Your task to perform on an android device: Go to privacy settings Image 0: 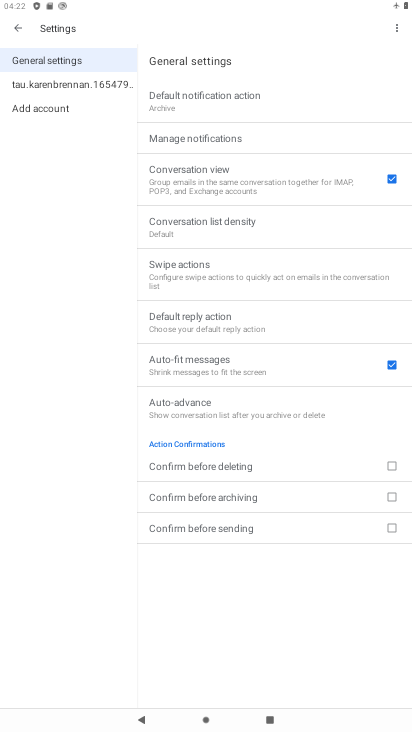
Step 0: press home button
Your task to perform on an android device: Go to privacy settings Image 1: 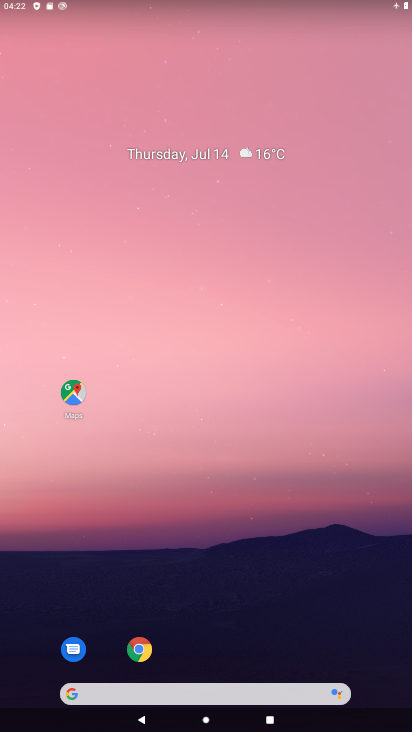
Step 1: drag from (311, 608) to (300, 14)
Your task to perform on an android device: Go to privacy settings Image 2: 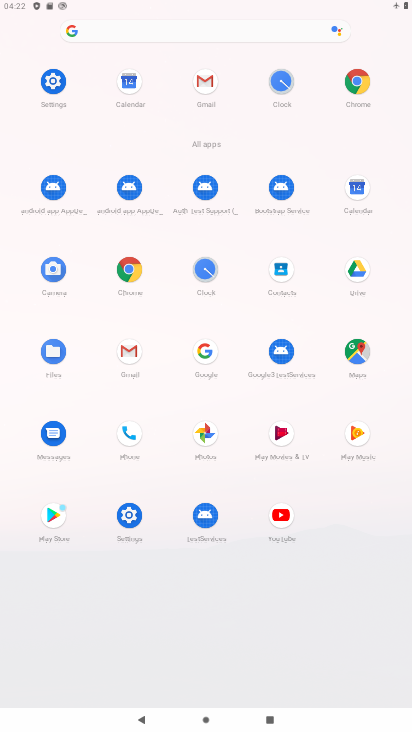
Step 2: click (54, 73)
Your task to perform on an android device: Go to privacy settings Image 3: 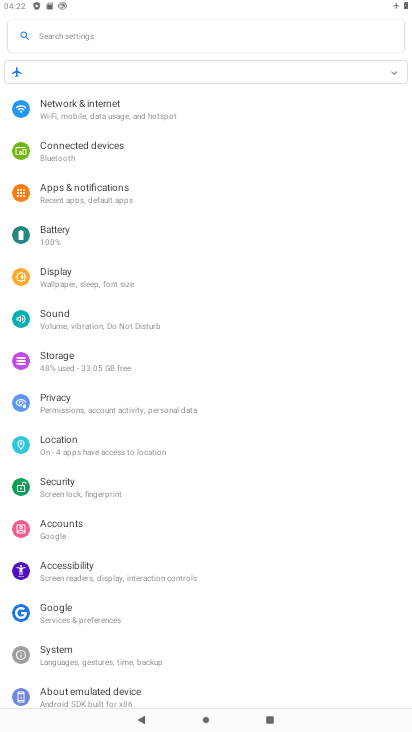
Step 3: click (86, 401)
Your task to perform on an android device: Go to privacy settings Image 4: 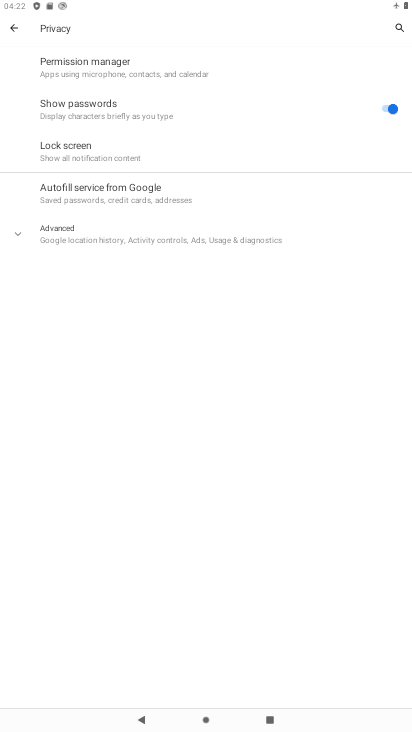
Step 4: task complete